Your task to perform on an android device: Open the calendar and show me this week's events Image 0: 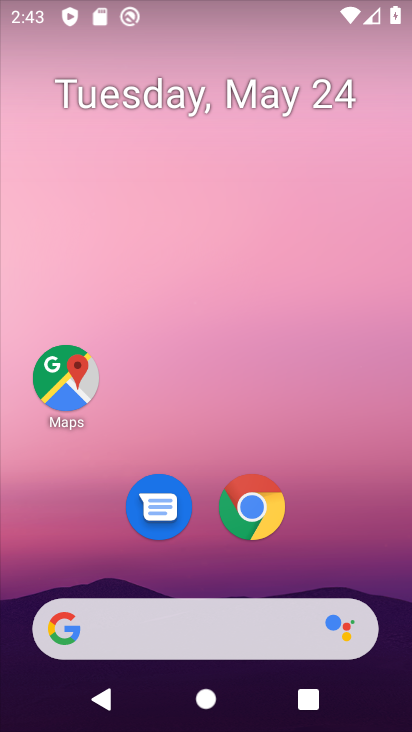
Step 0: drag from (200, 584) to (305, 89)
Your task to perform on an android device: Open the calendar and show me this week's events Image 1: 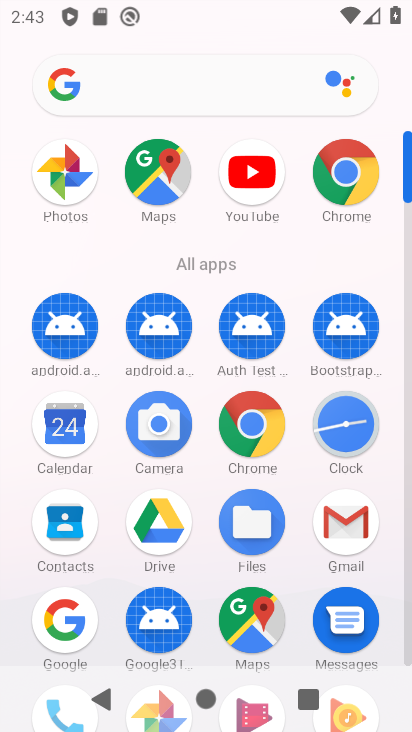
Step 1: click (71, 431)
Your task to perform on an android device: Open the calendar and show me this week's events Image 2: 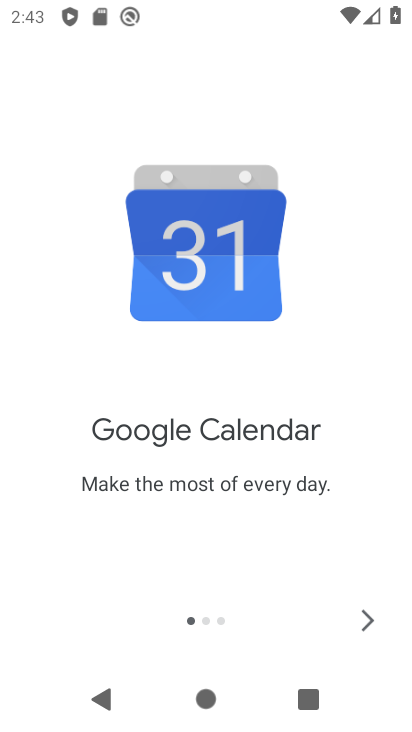
Step 2: click (376, 613)
Your task to perform on an android device: Open the calendar and show me this week's events Image 3: 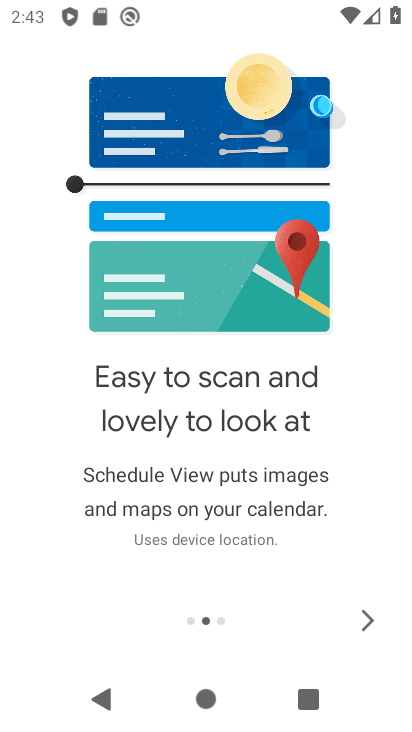
Step 3: click (376, 612)
Your task to perform on an android device: Open the calendar and show me this week's events Image 4: 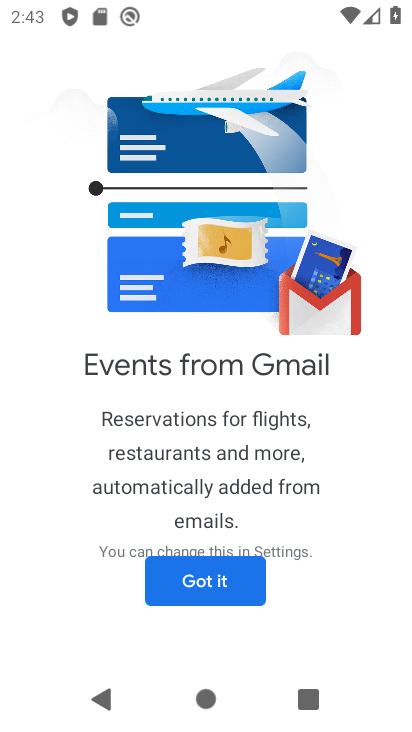
Step 4: click (193, 573)
Your task to perform on an android device: Open the calendar and show me this week's events Image 5: 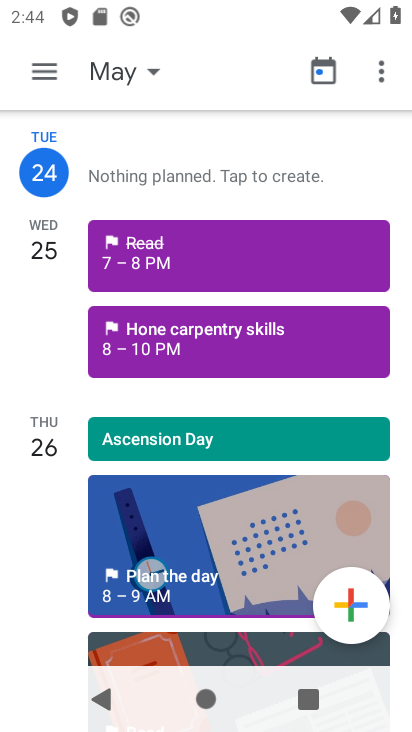
Step 5: click (156, 448)
Your task to perform on an android device: Open the calendar and show me this week's events Image 6: 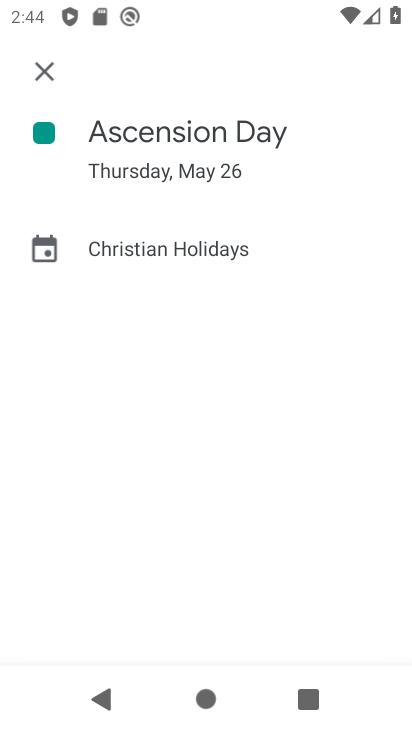
Step 6: task complete